Your task to perform on an android device: What's the news about the US? Image 0: 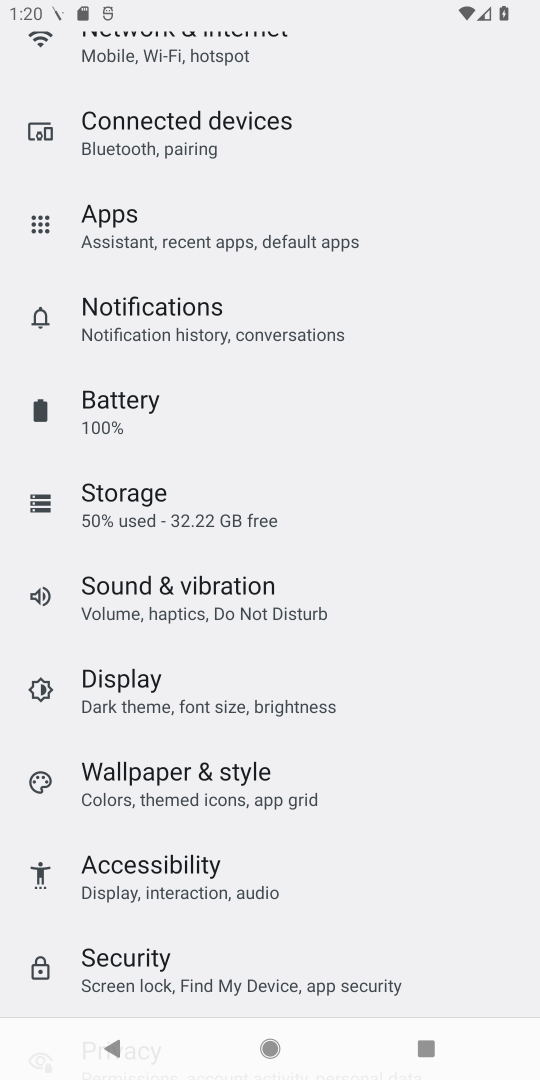
Step 0: drag from (335, 174) to (391, 498)
Your task to perform on an android device: What's the news about the US? Image 1: 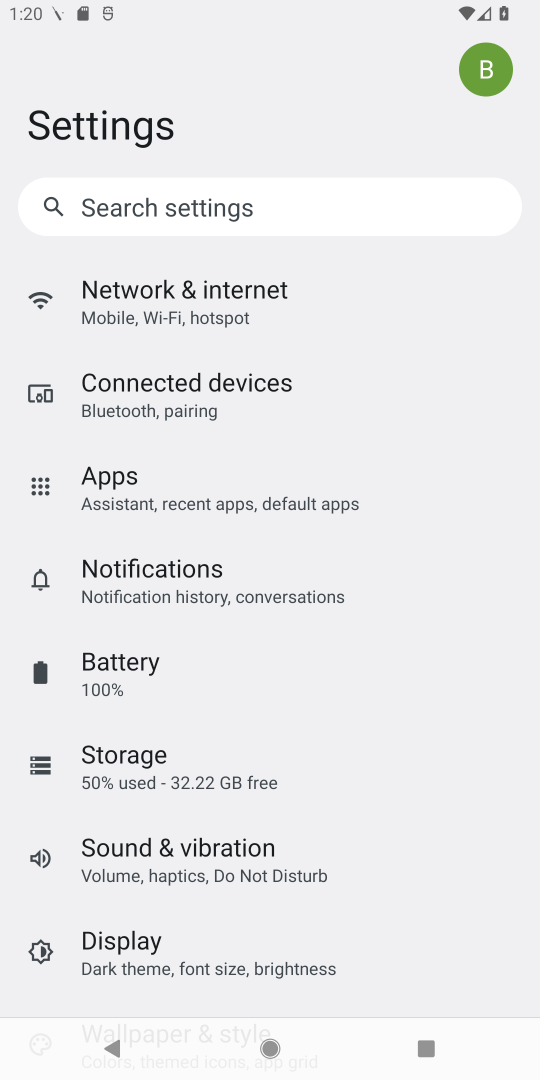
Step 1: press home button
Your task to perform on an android device: What's the news about the US? Image 2: 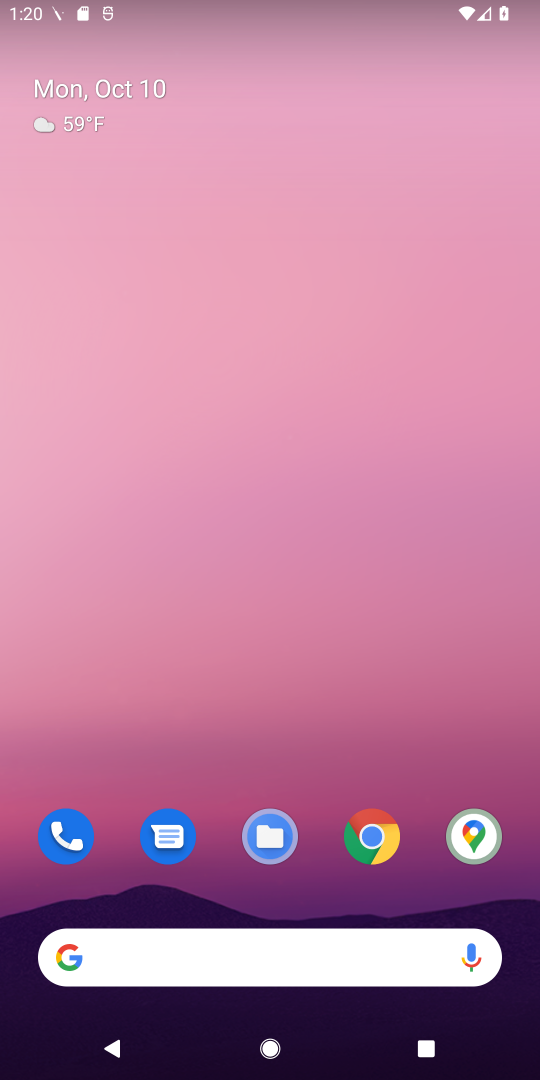
Step 2: click (375, 822)
Your task to perform on an android device: What's the news about the US? Image 3: 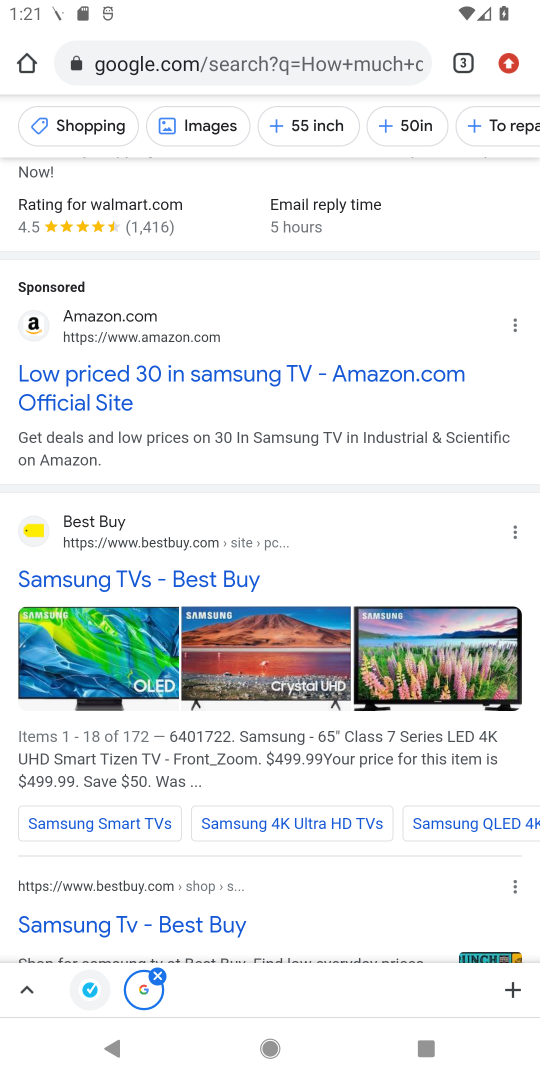
Step 3: drag from (259, 249) to (352, 704)
Your task to perform on an android device: What's the news about the US? Image 4: 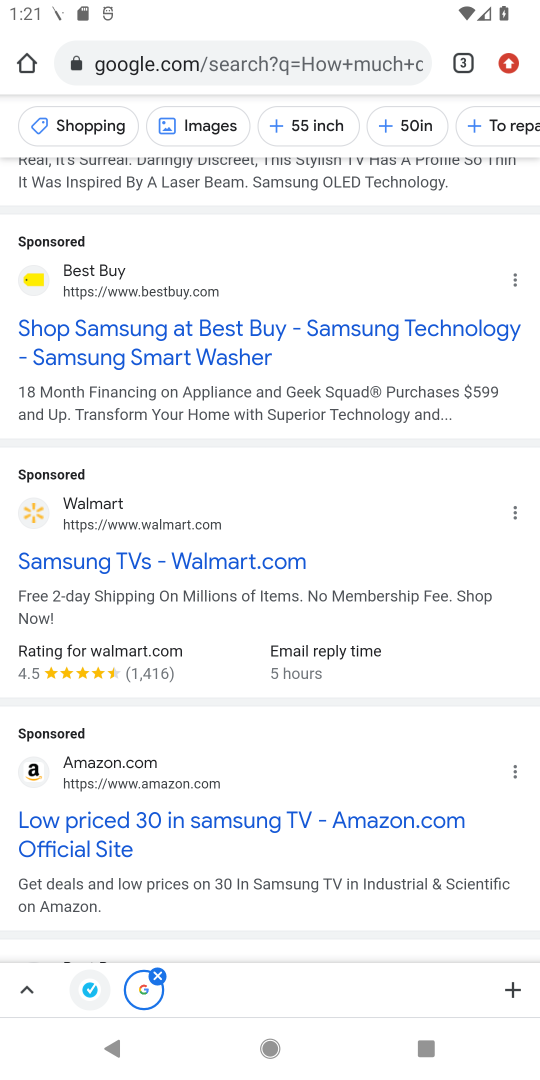
Step 4: click (278, 61)
Your task to perform on an android device: What's the news about the US? Image 5: 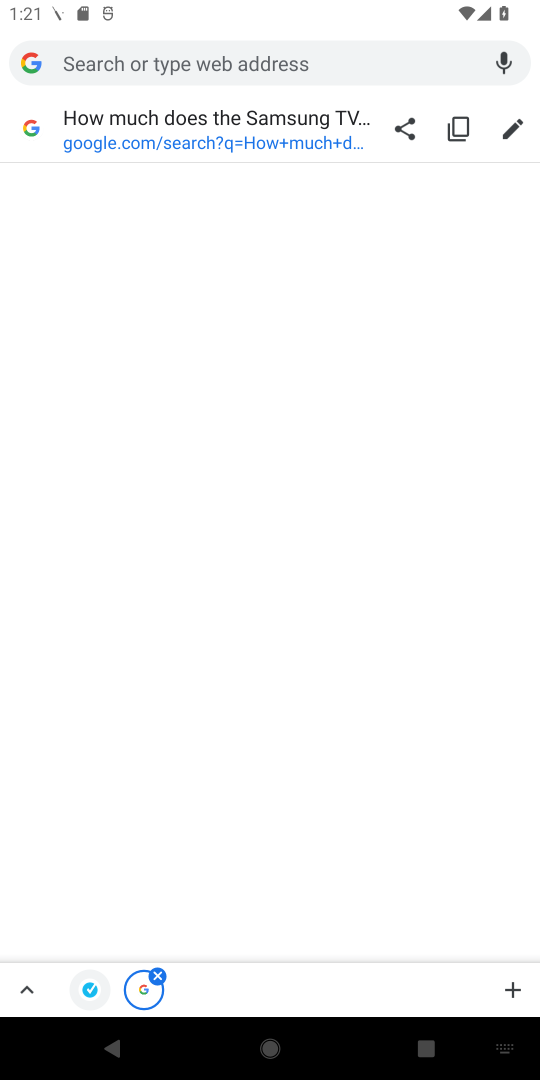
Step 5: type "USA"
Your task to perform on an android device: What's the news about the US? Image 6: 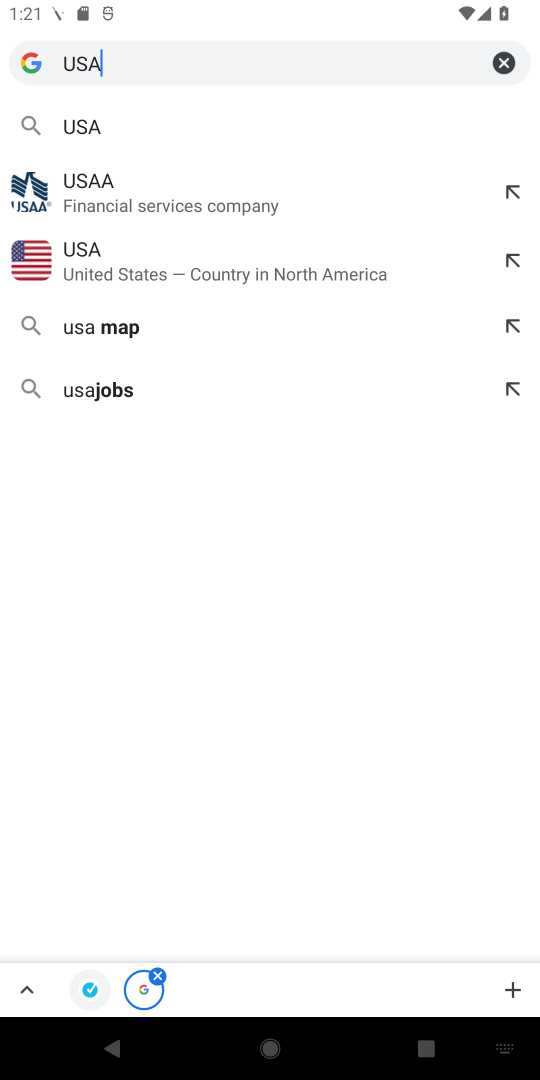
Step 6: click (125, 126)
Your task to perform on an android device: What's the news about the US? Image 7: 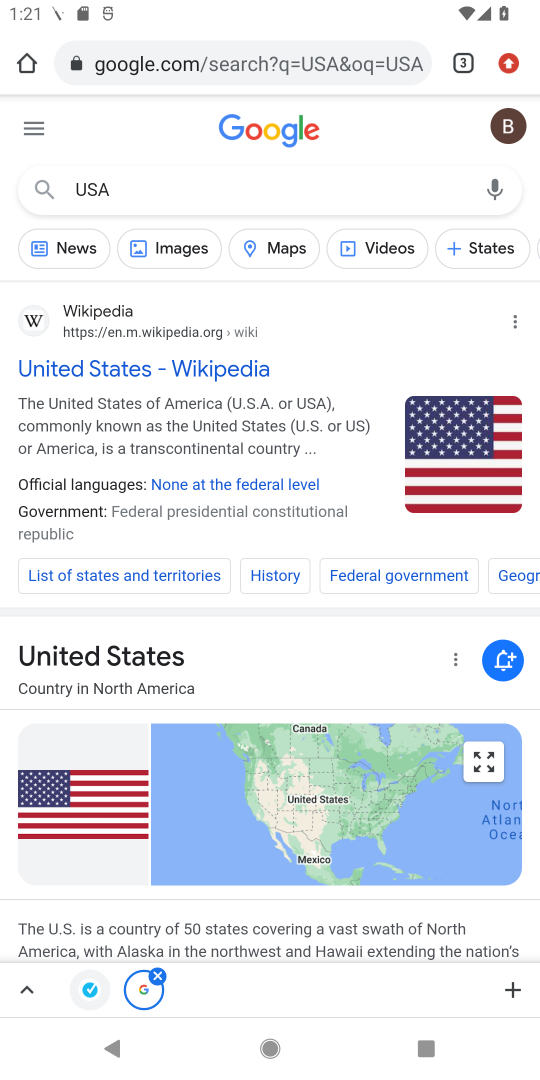
Step 7: click (75, 251)
Your task to perform on an android device: What's the news about the US? Image 8: 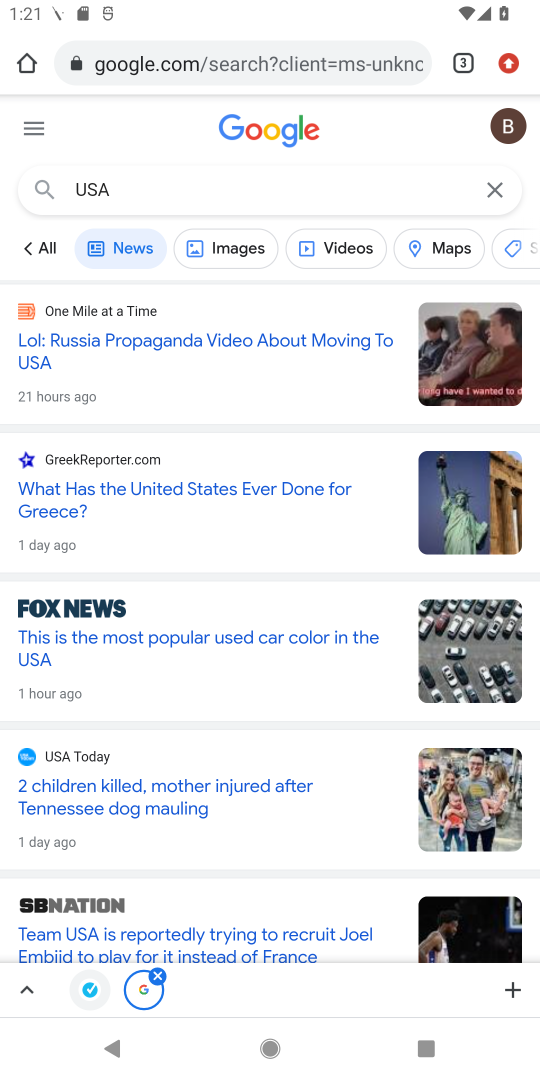
Step 8: task complete